Your task to perform on an android device: turn on javascript in the chrome app Image 0: 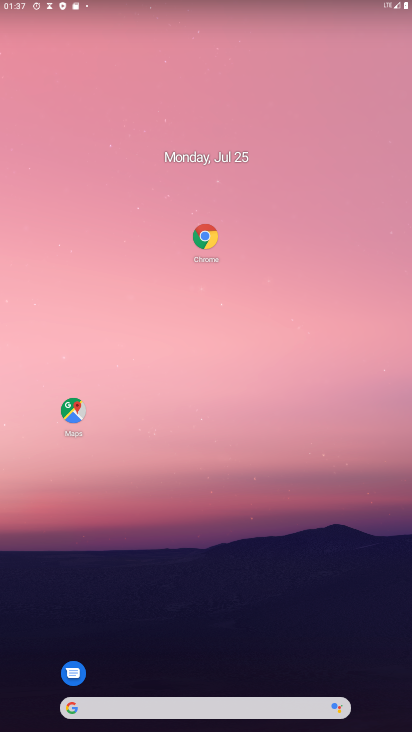
Step 0: drag from (312, 700) to (308, 2)
Your task to perform on an android device: turn on javascript in the chrome app Image 1: 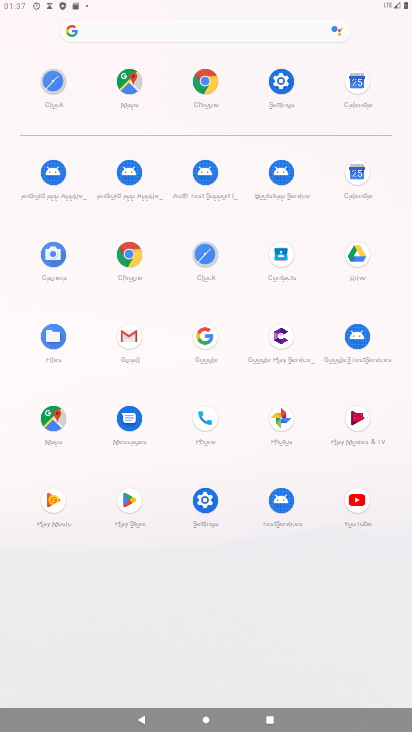
Step 1: click (128, 249)
Your task to perform on an android device: turn on javascript in the chrome app Image 2: 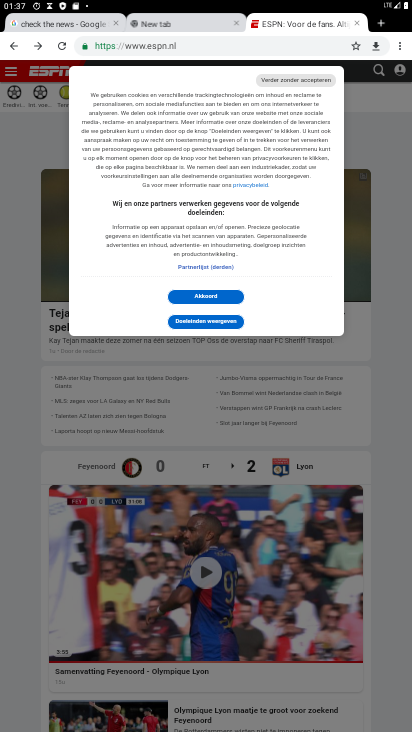
Step 2: drag from (403, 116) to (374, 252)
Your task to perform on an android device: turn on javascript in the chrome app Image 3: 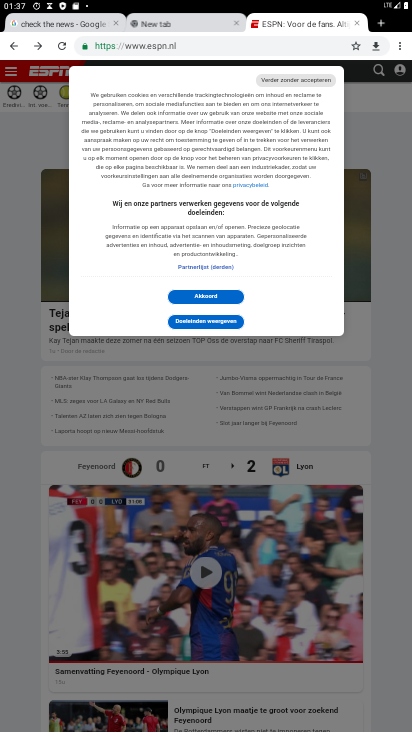
Step 3: drag from (399, 40) to (318, 300)
Your task to perform on an android device: turn on javascript in the chrome app Image 4: 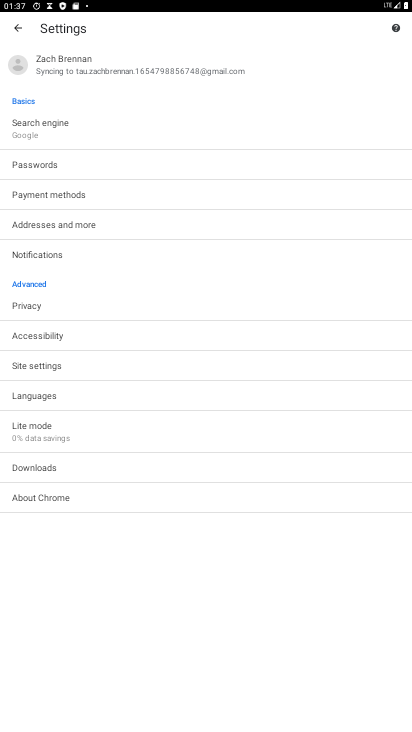
Step 4: click (62, 365)
Your task to perform on an android device: turn on javascript in the chrome app Image 5: 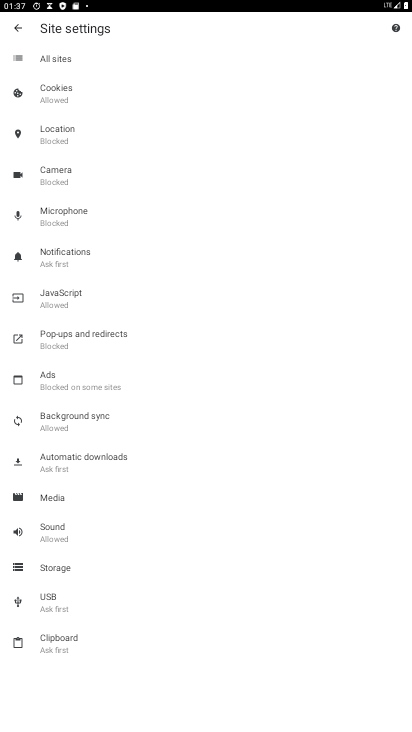
Step 5: click (84, 305)
Your task to perform on an android device: turn on javascript in the chrome app Image 6: 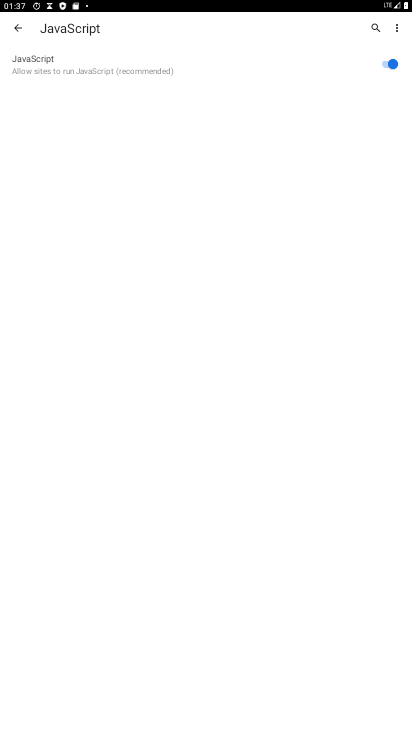
Step 6: task complete